Your task to perform on an android device: toggle notifications settings in the gmail app Image 0: 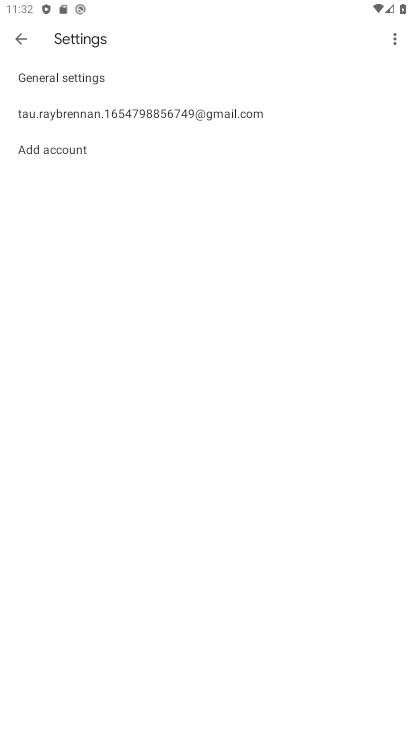
Step 0: press home button
Your task to perform on an android device: toggle notifications settings in the gmail app Image 1: 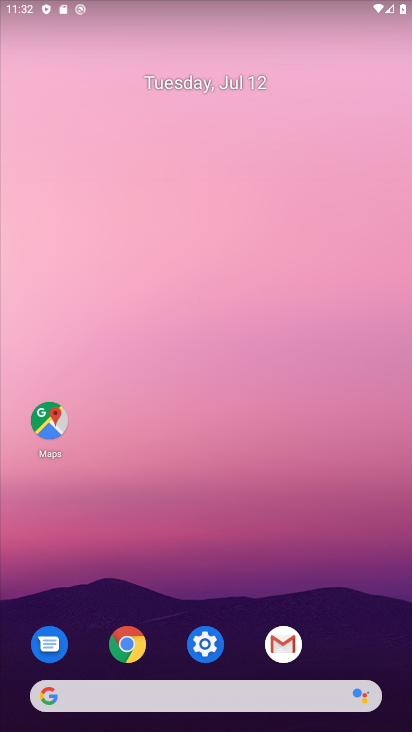
Step 1: click (287, 629)
Your task to perform on an android device: toggle notifications settings in the gmail app Image 2: 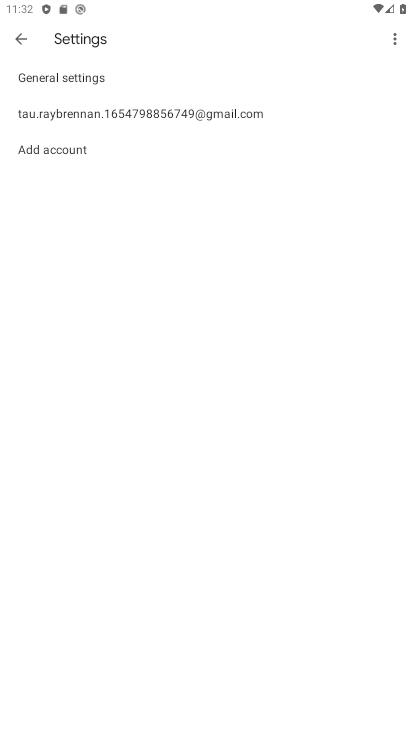
Step 2: click (118, 106)
Your task to perform on an android device: toggle notifications settings in the gmail app Image 3: 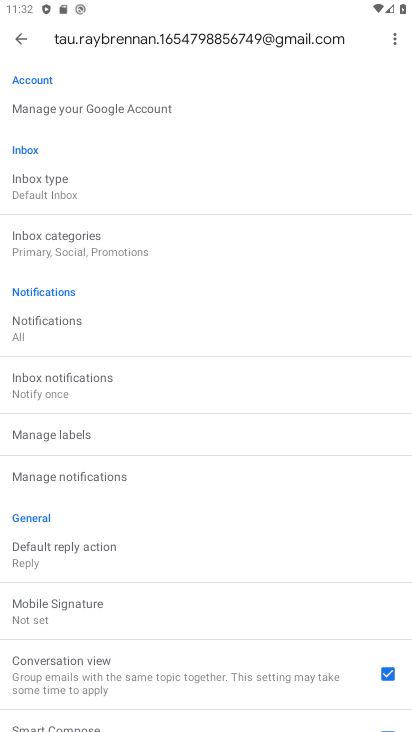
Step 3: click (98, 322)
Your task to perform on an android device: toggle notifications settings in the gmail app Image 4: 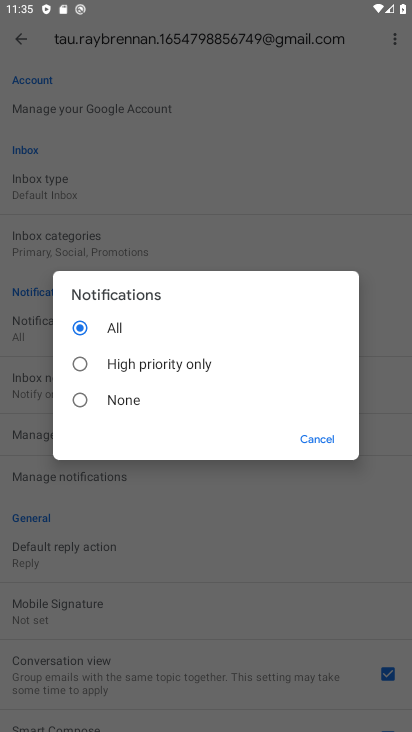
Step 4: task complete